Your task to perform on an android device: What is the news today? Image 0: 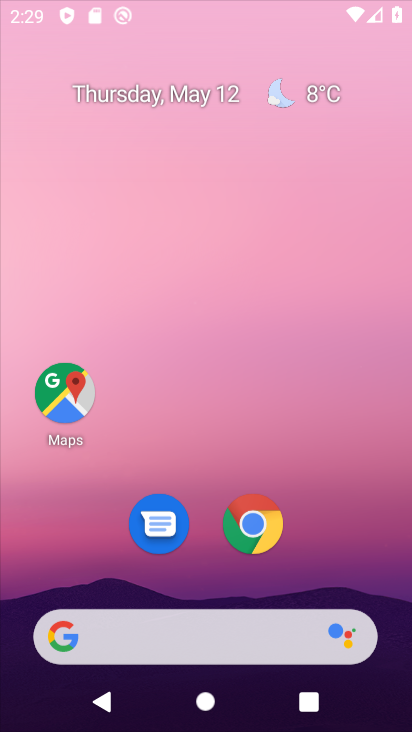
Step 0: click (165, 141)
Your task to perform on an android device: What is the news today? Image 1: 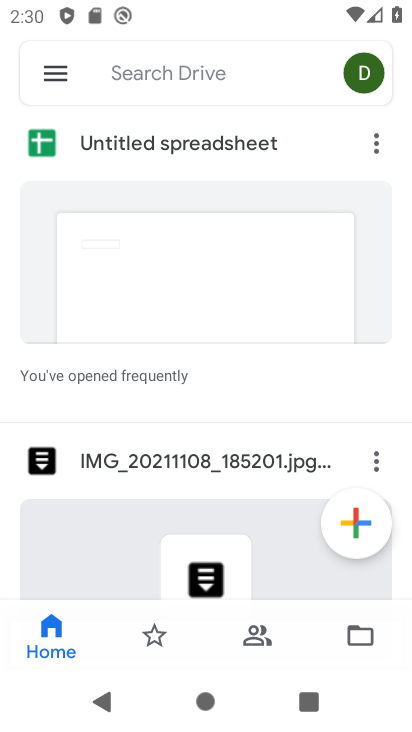
Step 1: press home button
Your task to perform on an android device: What is the news today? Image 2: 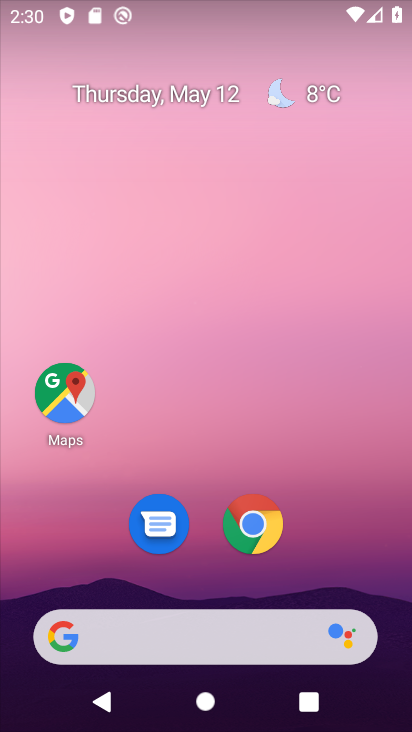
Step 2: click (276, 639)
Your task to perform on an android device: What is the news today? Image 3: 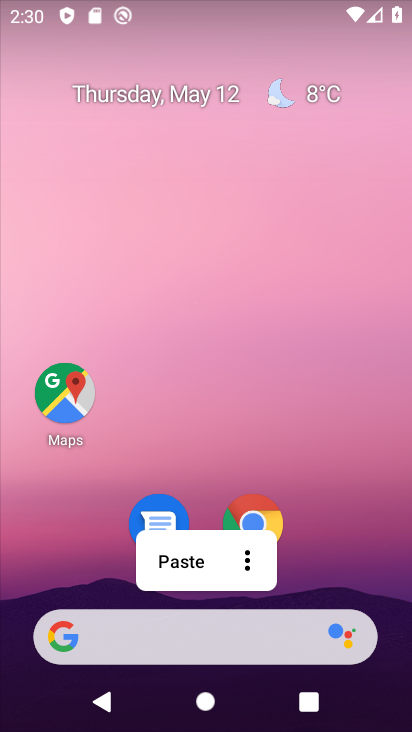
Step 3: click (152, 629)
Your task to perform on an android device: What is the news today? Image 4: 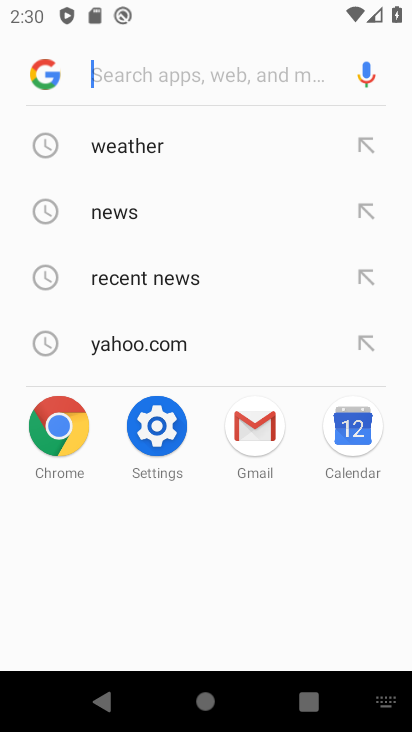
Step 4: click (112, 205)
Your task to perform on an android device: What is the news today? Image 5: 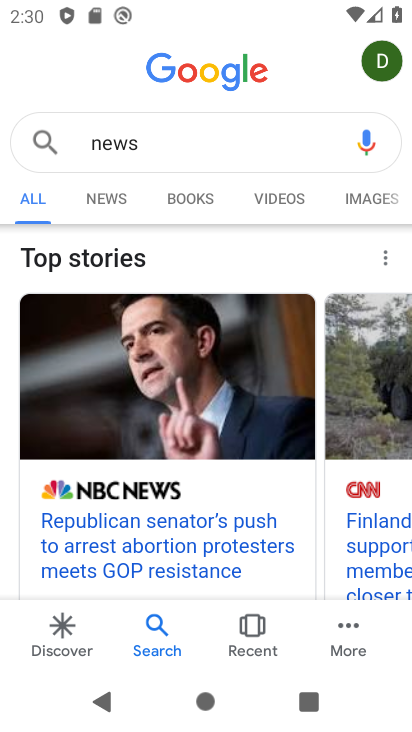
Step 5: click (113, 201)
Your task to perform on an android device: What is the news today? Image 6: 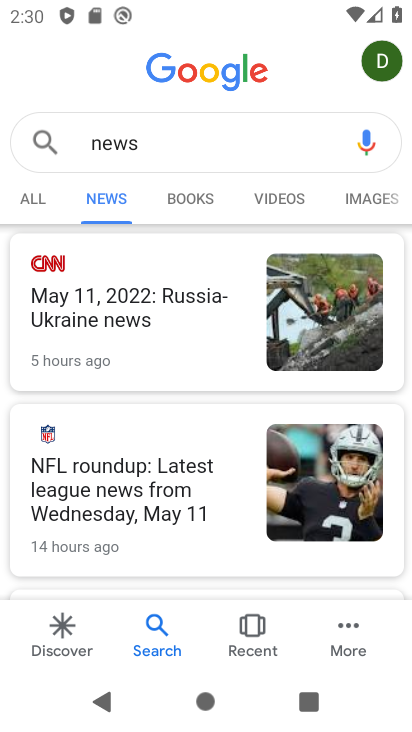
Step 6: task complete